Your task to perform on an android device: Search for pizza restaurants on Maps Image 0: 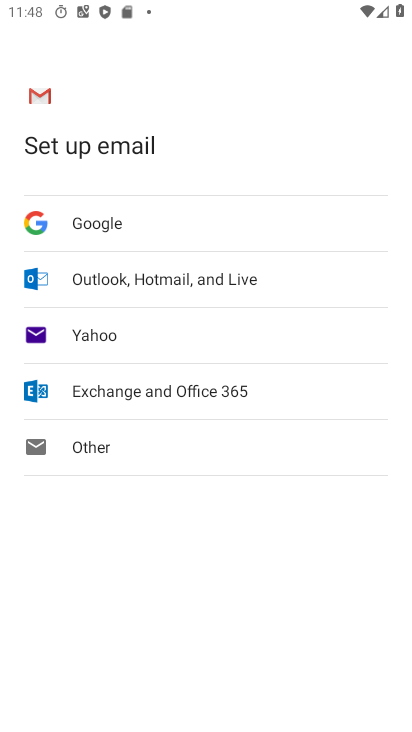
Step 0: press home button
Your task to perform on an android device: Search for pizza restaurants on Maps Image 1: 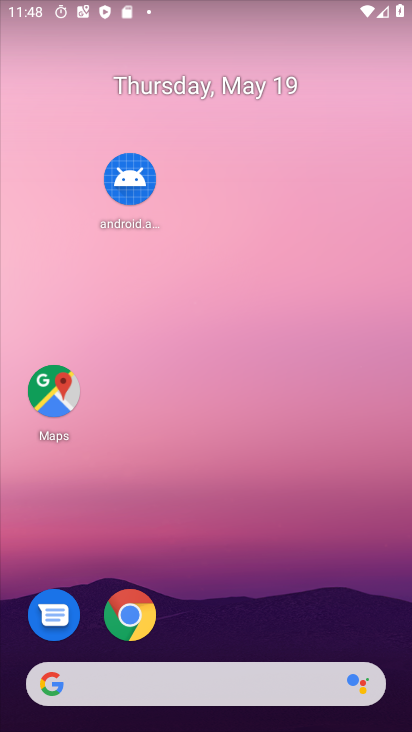
Step 1: click (60, 399)
Your task to perform on an android device: Search for pizza restaurants on Maps Image 2: 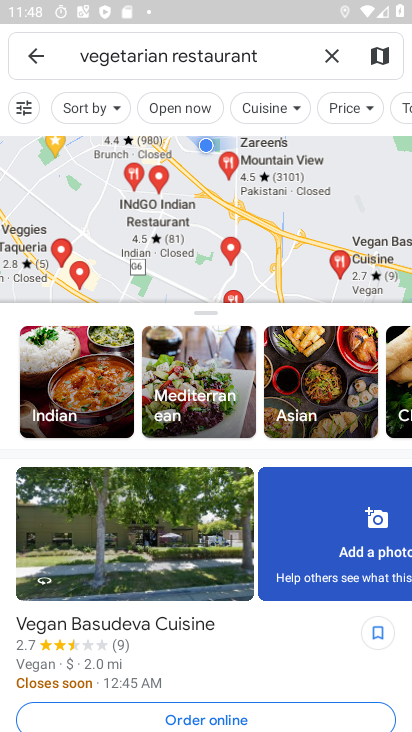
Step 2: click (325, 51)
Your task to perform on an android device: Search for pizza restaurants on Maps Image 3: 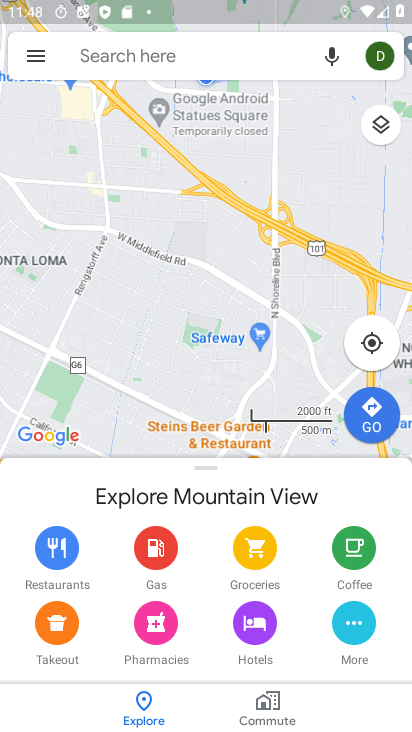
Step 3: click (192, 61)
Your task to perform on an android device: Search for pizza restaurants on Maps Image 4: 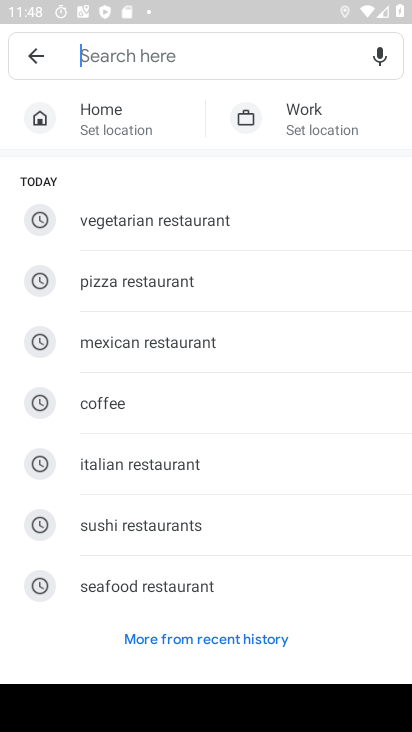
Step 4: click (242, 278)
Your task to perform on an android device: Search for pizza restaurants on Maps Image 5: 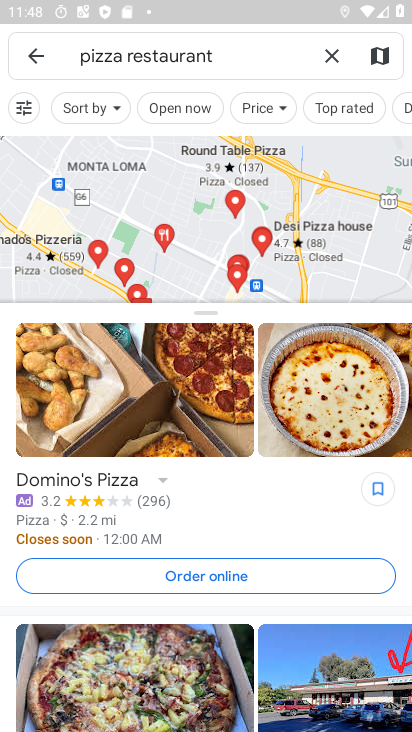
Step 5: task complete